Your task to perform on an android device: turn on priority inbox in the gmail app Image 0: 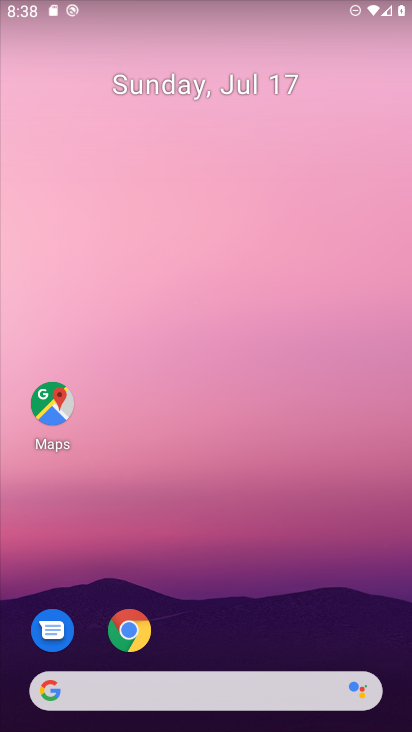
Step 0: drag from (258, 606) to (259, 38)
Your task to perform on an android device: turn on priority inbox in the gmail app Image 1: 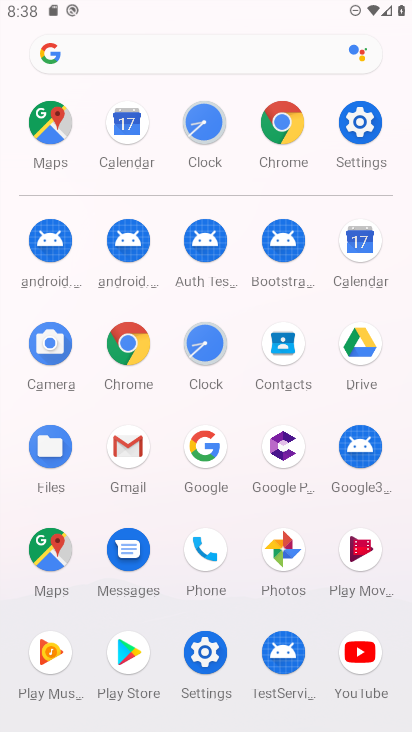
Step 1: click (112, 444)
Your task to perform on an android device: turn on priority inbox in the gmail app Image 2: 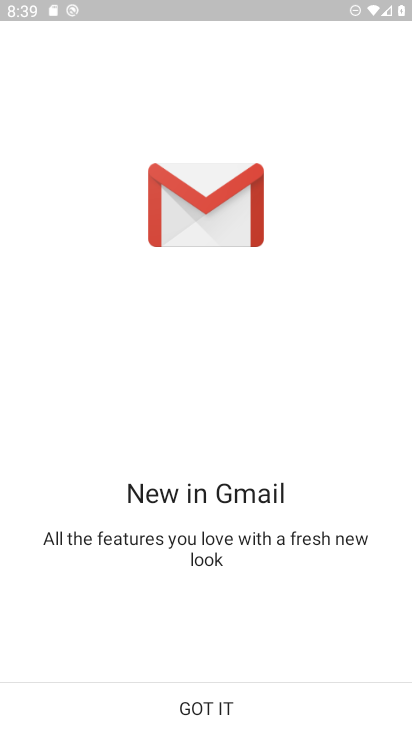
Step 2: click (221, 714)
Your task to perform on an android device: turn on priority inbox in the gmail app Image 3: 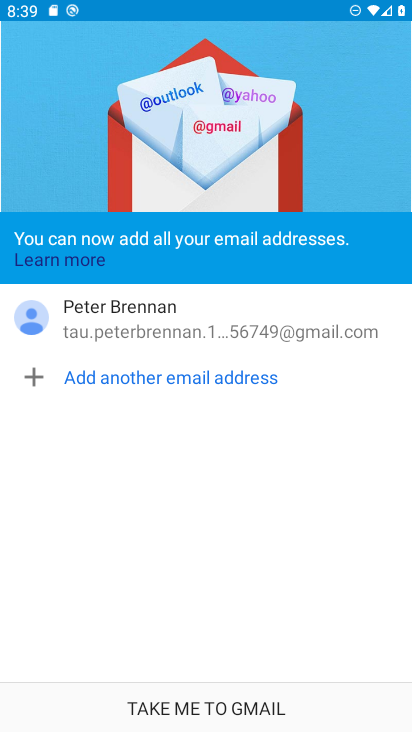
Step 3: click (198, 711)
Your task to perform on an android device: turn on priority inbox in the gmail app Image 4: 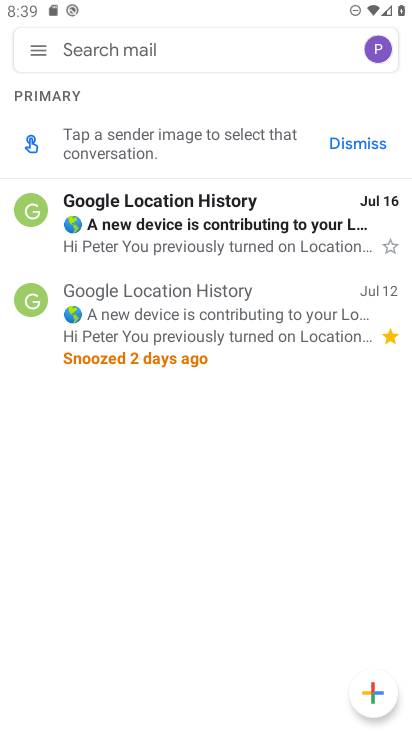
Step 4: click (39, 47)
Your task to perform on an android device: turn on priority inbox in the gmail app Image 5: 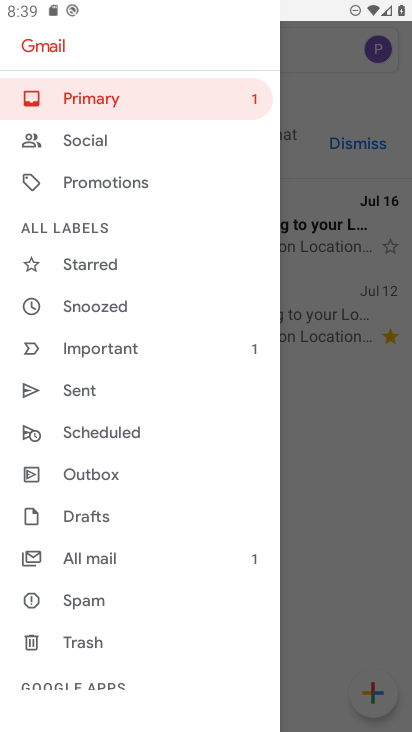
Step 5: drag from (86, 653) to (134, 179)
Your task to perform on an android device: turn on priority inbox in the gmail app Image 6: 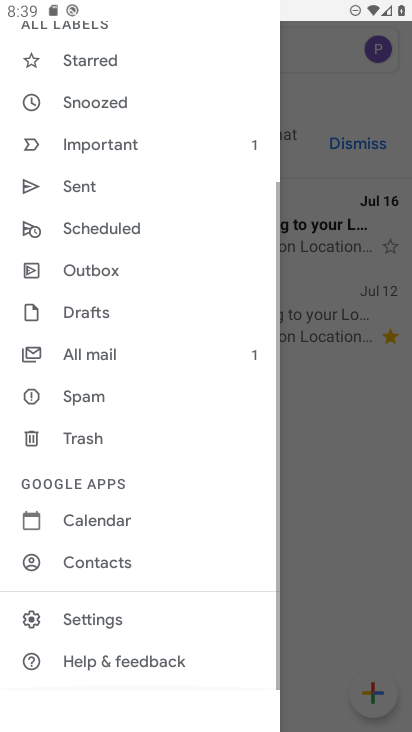
Step 6: click (85, 625)
Your task to perform on an android device: turn on priority inbox in the gmail app Image 7: 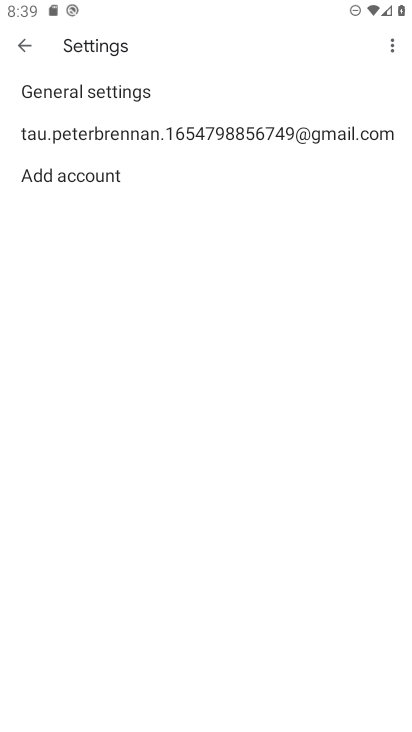
Step 7: click (48, 87)
Your task to perform on an android device: turn on priority inbox in the gmail app Image 8: 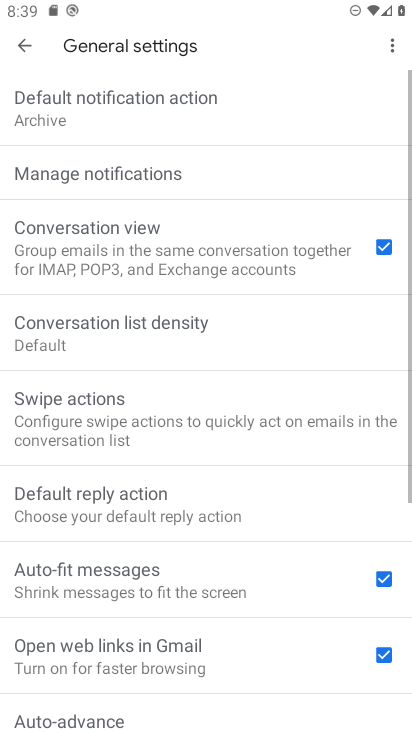
Step 8: click (23, 47)
Your task to perform on an android device: turn on priority inbox in the gmail app Image 9: 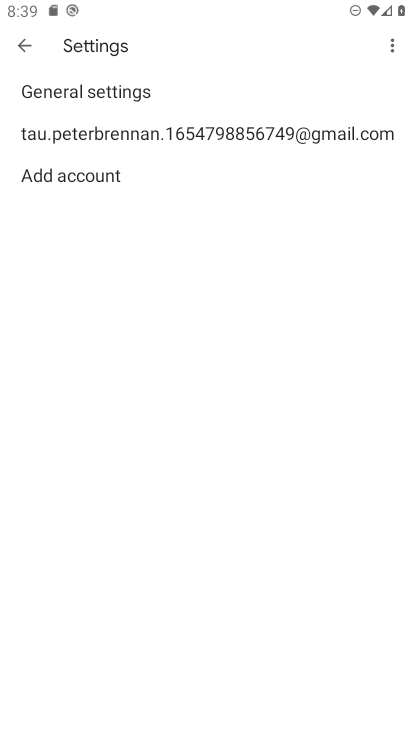
Step 9: click (69, 147)
Your task to perform on an android device: turn on priority inbox in the gmail app Image 10: 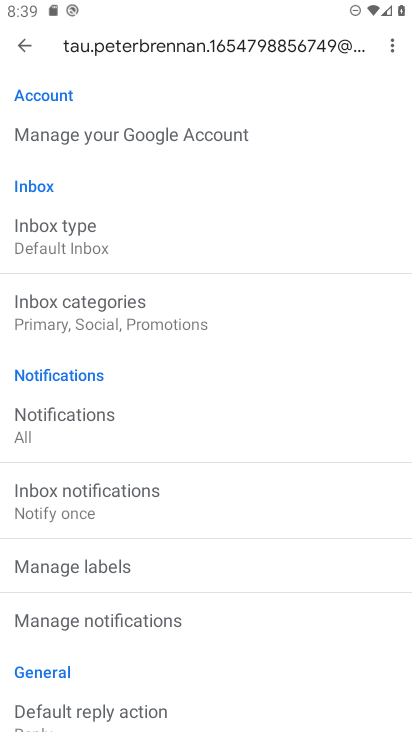
Step 10: click (81, 244)
Your task to perform on an android device: turn on priority inbox in the gmail app Image 11: 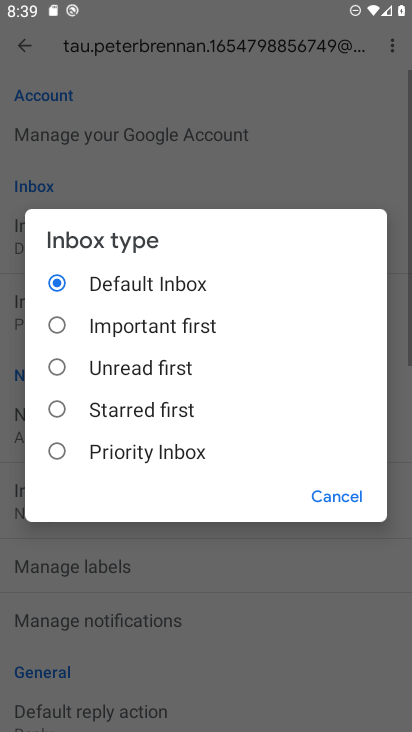
Step 11: click (134, 452)
Your task to perform on an android device: turn on priority inbox in the gmail app Image 12: 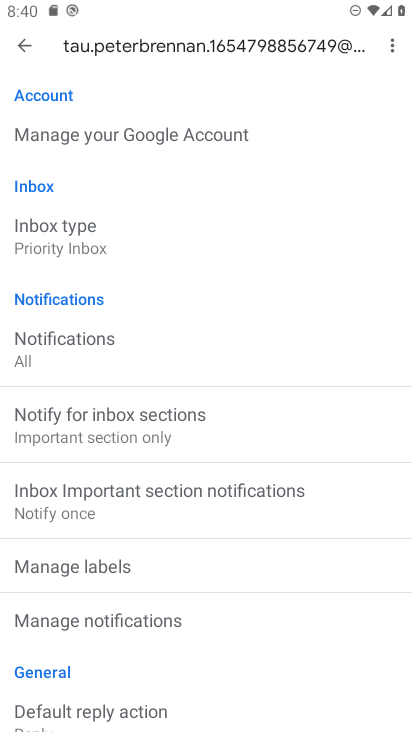
Step 12: click (88, 238)
Your task to perform on an android device: turn on priority inbox in the gmail app Image 13: 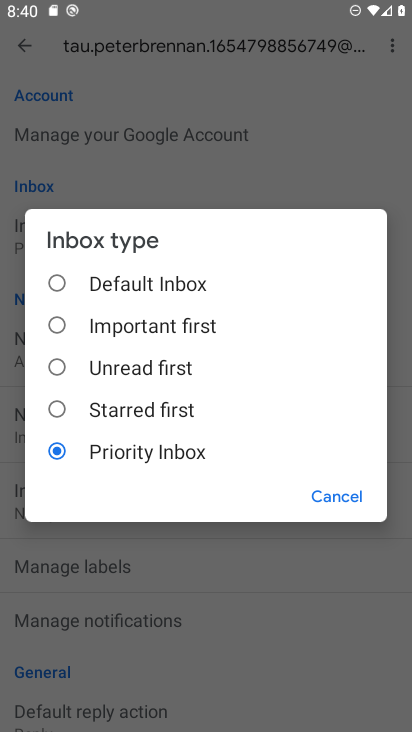
Step 13: task complete